Your task to perform on an android device: Go to accessibility settings Image 0: 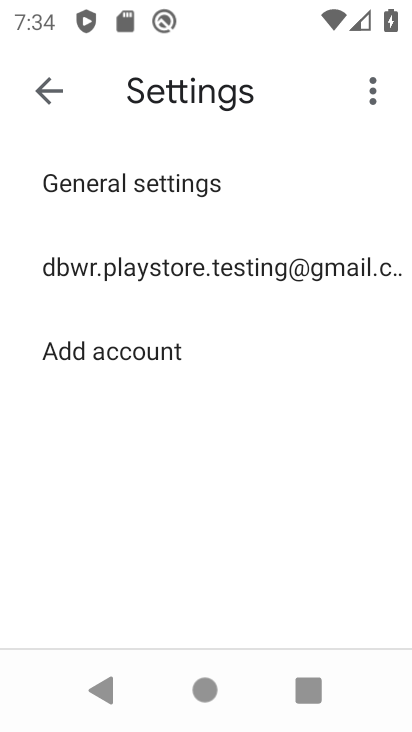
Step 0: press home button
Your task to perform on an android device: Go to accessibility settings Image 1: 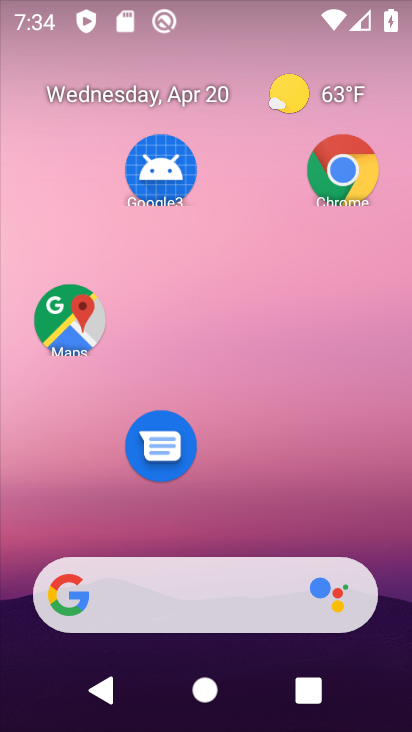
Step 1: drag from (248, 520) to (208, 43)
Your task to perform on an android device: Go to accessibility settings Image 2: 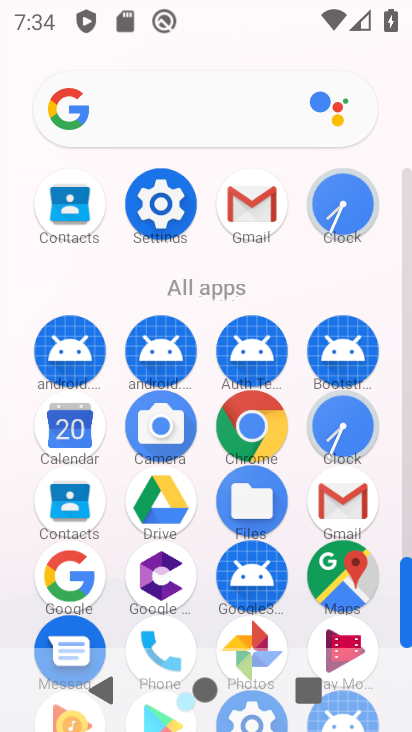
Step 2: click (166, 204)
Your task to perform on an android device: Go to accessibility settings Image 3: 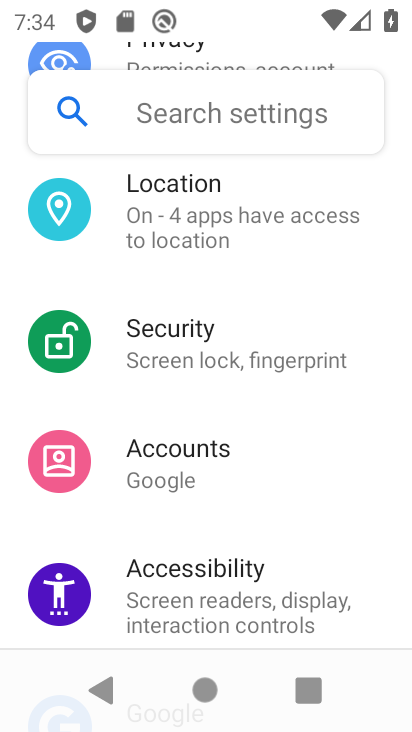
Step 3: click (196, 562)
Your task to perform on an android device: Go to accessibility settings Image 4: 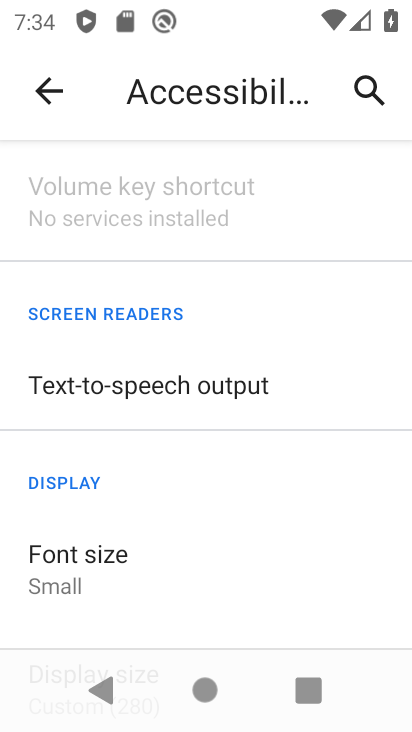
Step 4: task complete